Your task to perform on an android device: Check the weather Image 0: 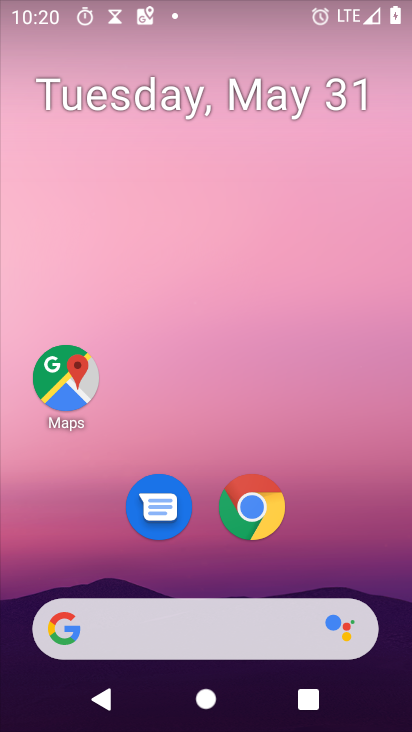
Step 0: click (200, 627)
Your task to perform on an android device: Check the weather Image 1: 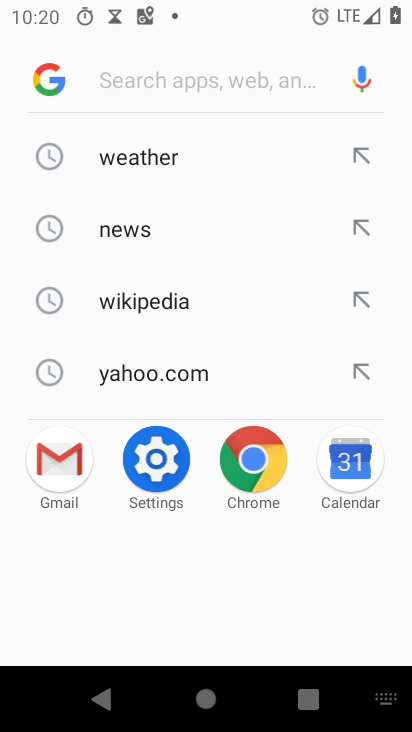
Step 1: click (170, 165)
Your task to perform on an android device: Check the weather Image 2: 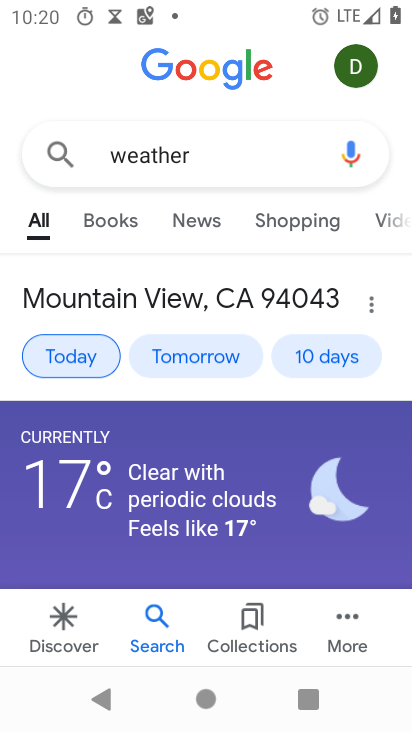
Step 2: task complete